Your task to perform on an android device: toggle sleep mode Image 0: 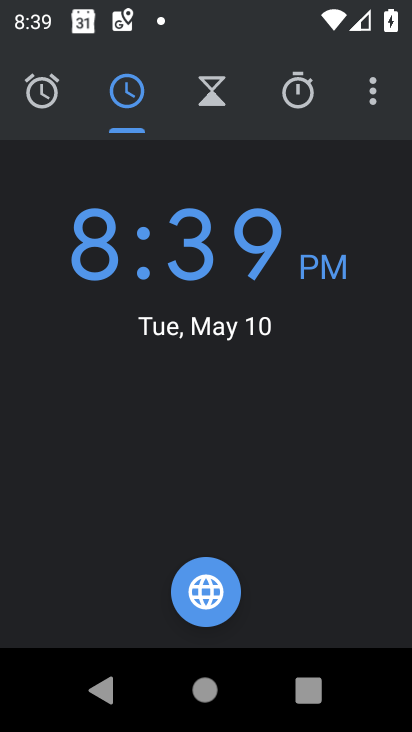
Step 0: press home button
Your task to perform on an android device: toggle sleep mode Image 1: 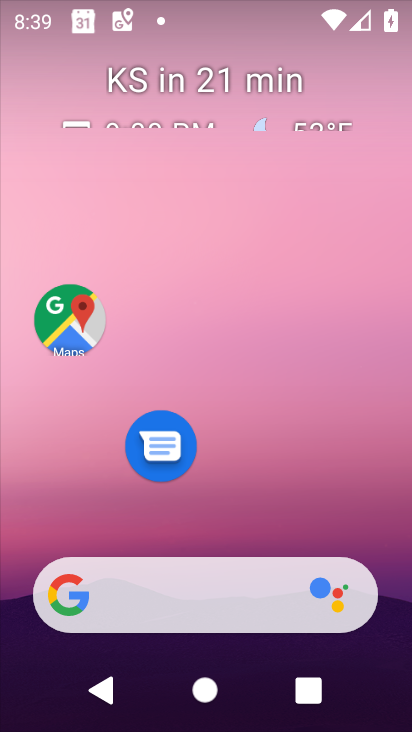
Step 1: drag from (225, 523) to (257, 3)
Your task to perform on an android device: toggle sleep mode Image 2: 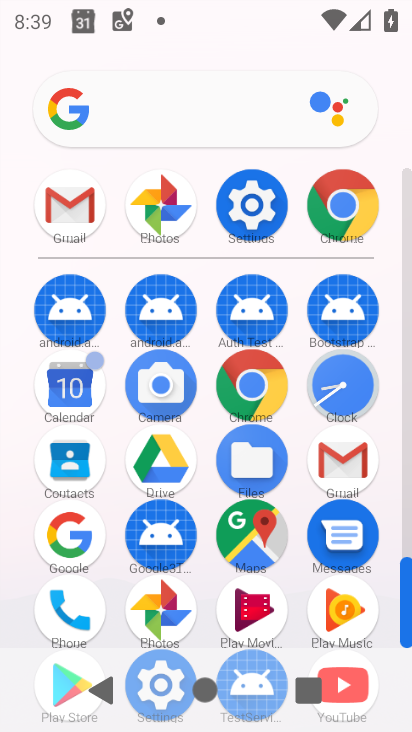
Step 2: click (222, 212)
Your task to perform on an android device: toggle sleep mode Image 3: 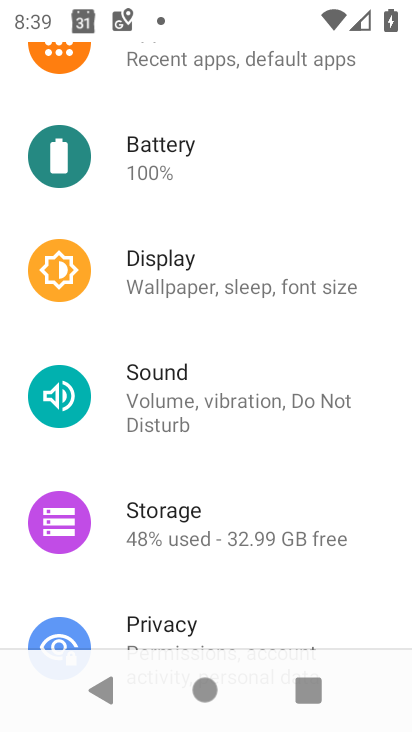
Step 3: click (155, 291)
Your task to perform on an android device: toggle sleep mode Image 4: 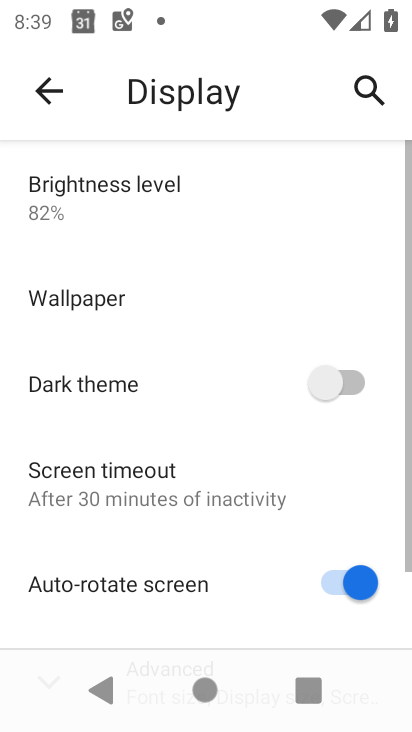
Step 4: drag from (181, 466) to (113, 126)
Your task to perform on an android device: toggle sleep mode Image 5: 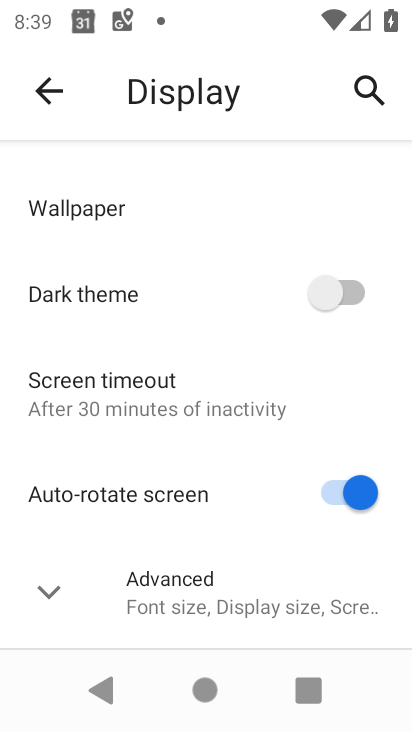
Step 5: click (178, 592)
Your task to perform on an android device: toggle sleep mode Image 6: 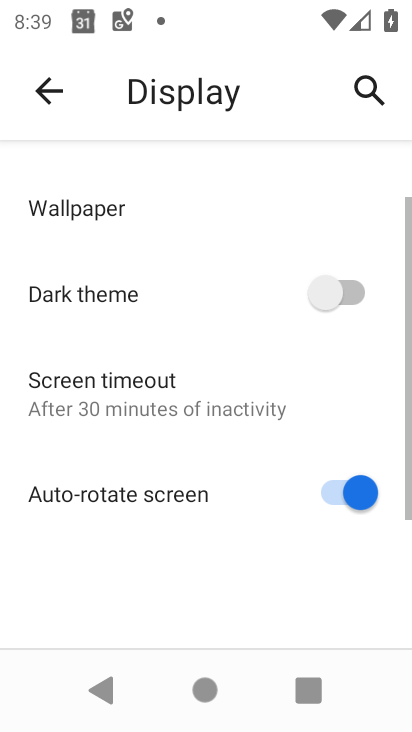
Step 6: drag from (178, 592) to (111, 209)
Your task to perform on an android device: toggle sleep mode Image 7: 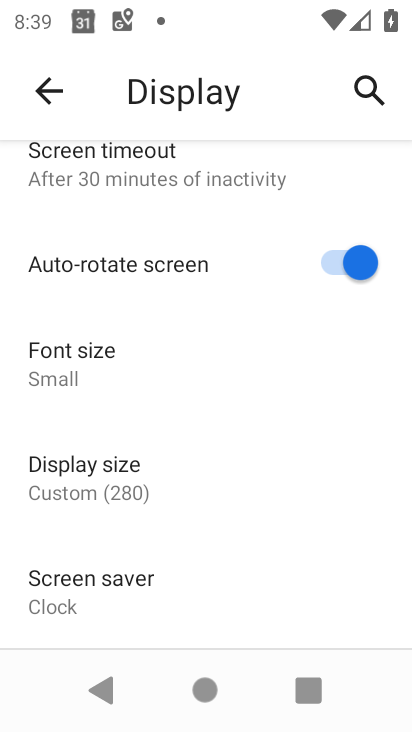
Step 7: drag from (150, 426) to (131, 159)
Your task to perform on an android device: toggle sleep mode Image 8: 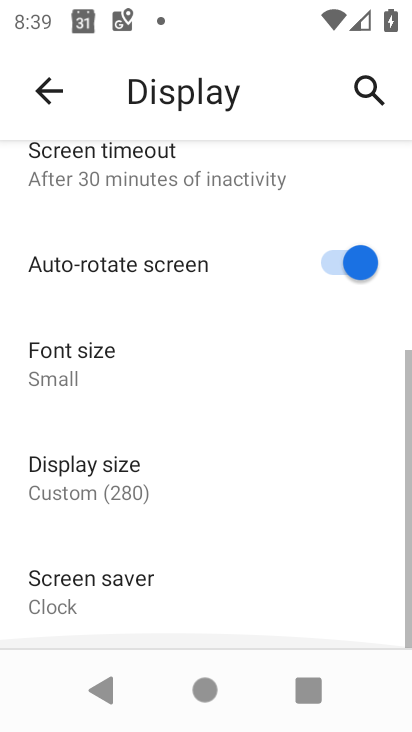
Step 8: drag from (135, 167) to (122, 605)
Your task to perform on an android device: toggle sleep mode Image 9: 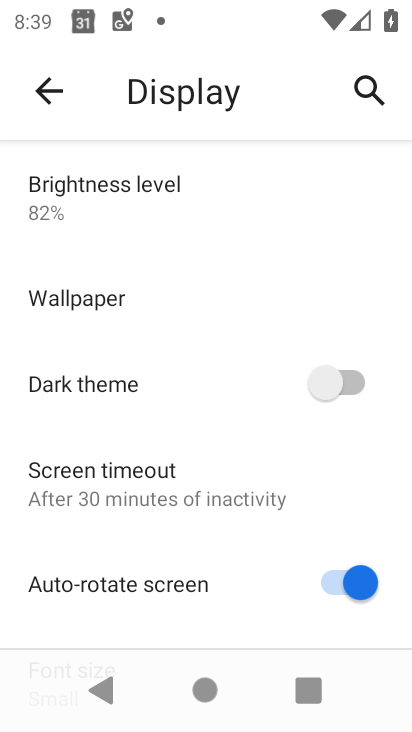
Step 9: drag from (164, 545) to (107, 129)
Your task to perform on an android device: toggle sleep mode Image 10: 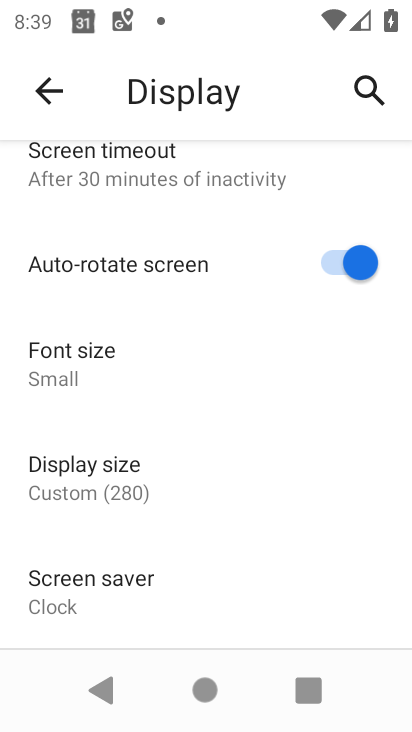
Step 10: drag from (117, 276) to (103, 559)
Your task to perform on an android device: toggle sleep mode Image 11: 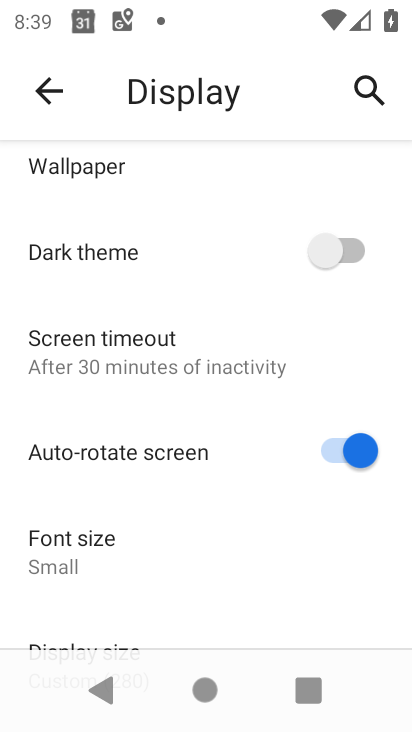
Step 11: click (108, 345)
Your task to perform on an android device: toggle sleep mode Image 12: 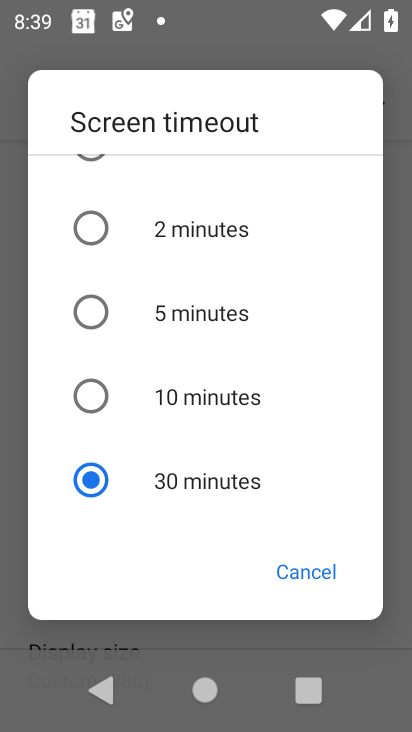
Step 12: task complete